Your task to perform on an android device: What's the weather going to be this weekend? Image 0: 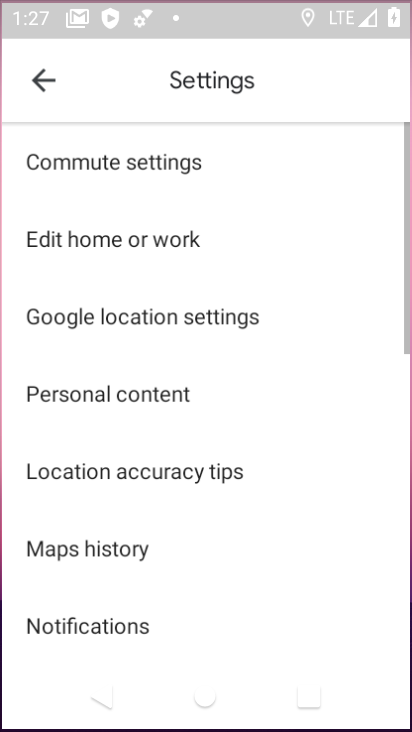
Step 0: press home button
Your task to perform on an android device: What's the weather going to be this weekend? Image 1: 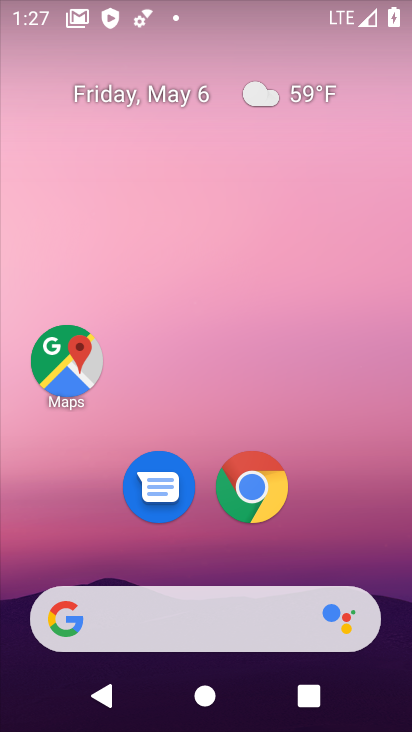
Step 1: drag from (263, 495) to (323, 207)
Your task to perform on an android device: What's the weather going to be this weekend? Image 2: 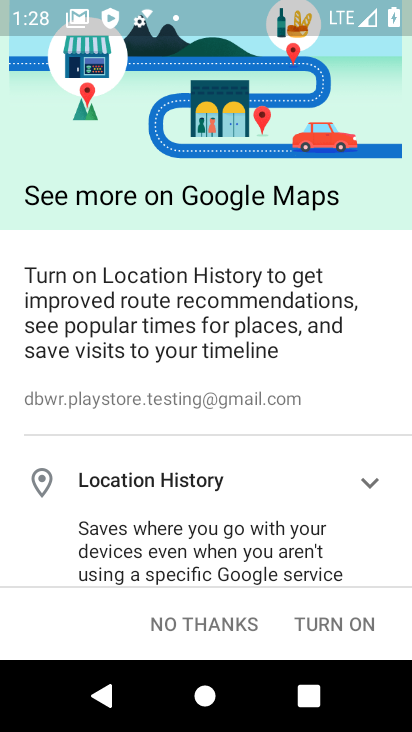
Step 2: press home button
Your task to perform on an android device: What's the weather going to be this weekend? Image 3: 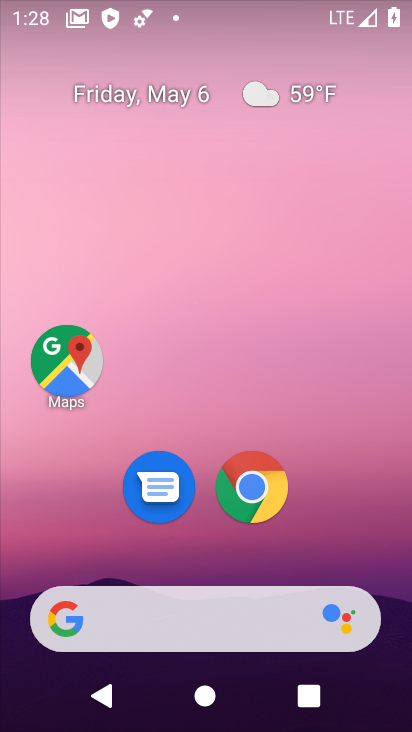
Step 3: drag from (246, 523) to (335, 67)
Your task to perform on an android device: What's the weather going to be this weekend? Image 4: 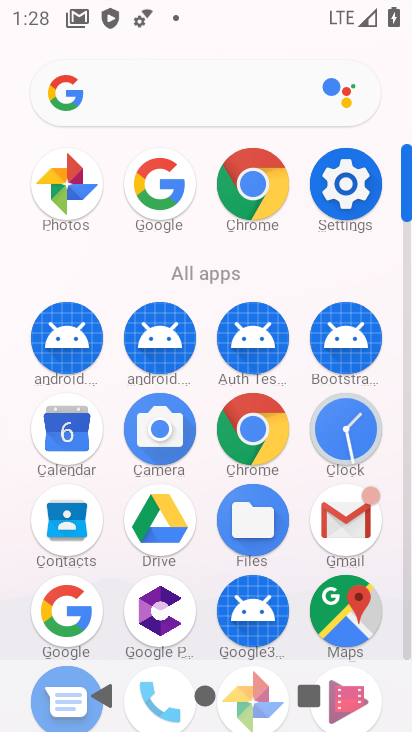
Step 4: click (405, 466)
Your task to perform on an android device: What's the weather going to be this weekend? Image 5: 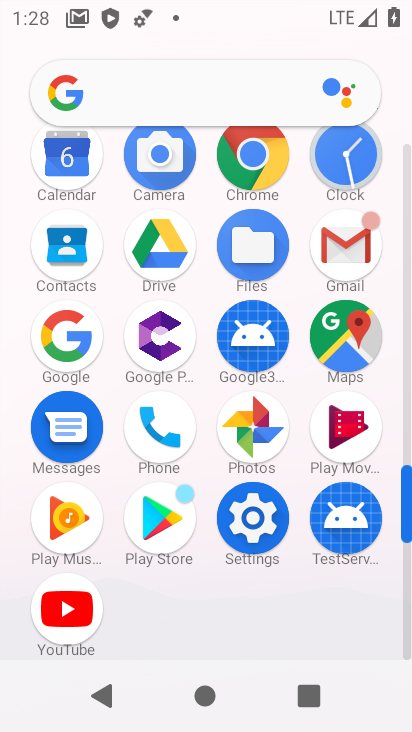
Step 5: click (61, 360)
Your task to perform on an android device: What's the weather going to be this weekend? Image 6: 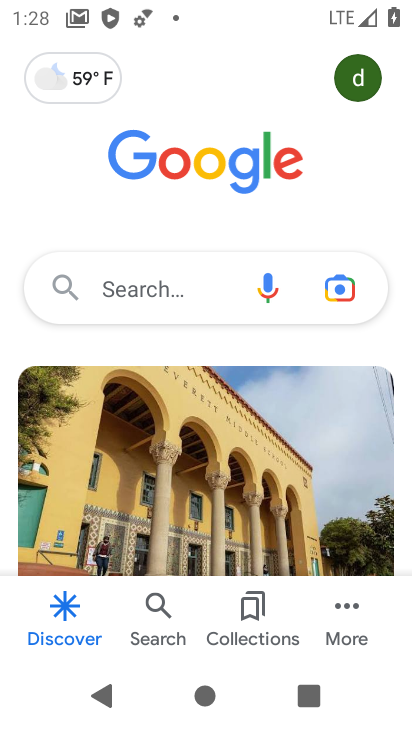
Step 6: click (188, 285)
Your task to perform on an android device: What's the weather going to be this weekend? Image 7: 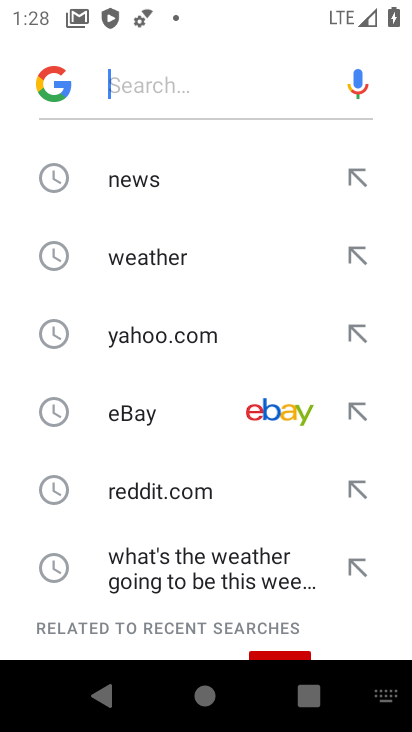
Step 7: click (183, 249)
Your task to perform on an android device: What's the weather going to be this weekend? Image 8: 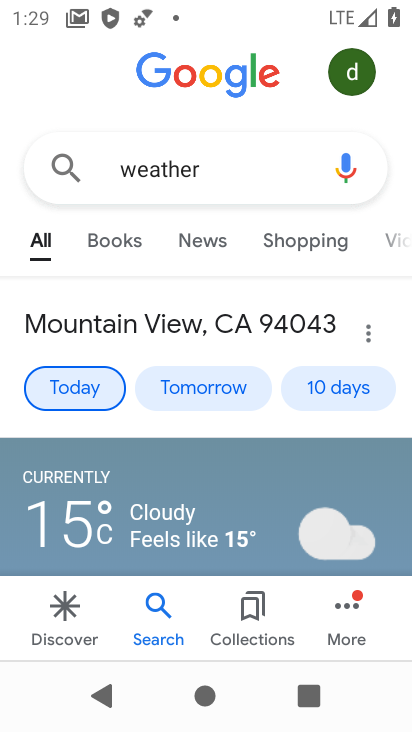
Step 8: click (331, 386)
Your task to perform on an android device: What's the weather going to be this weekend? Image 9: 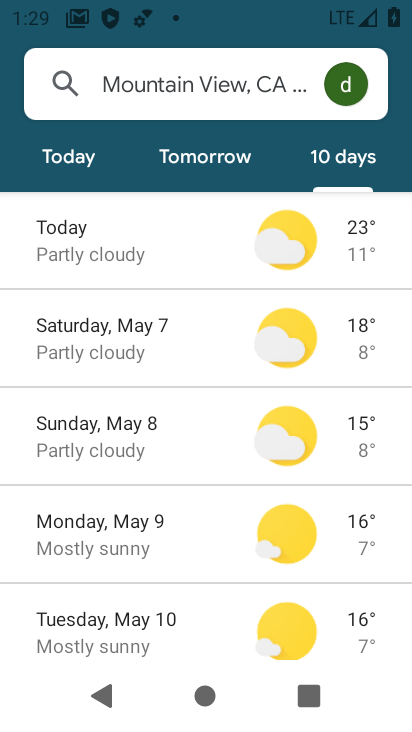
Step 9: task complete